Your task to perform on an android device: Go to privacy settings Image 0: 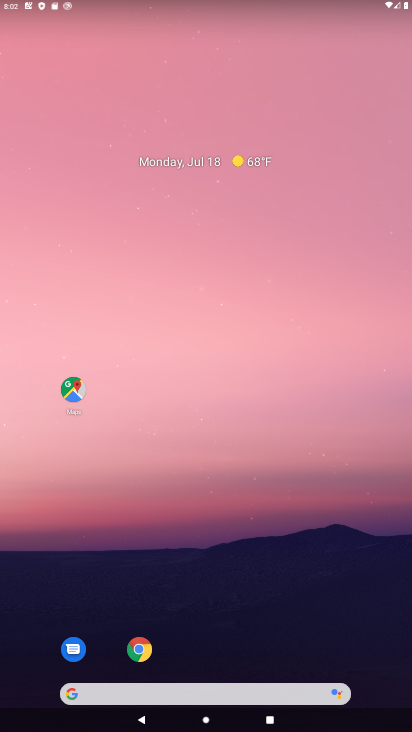
Step 0: drag from (186, 726) to (181, 173)
Your task to perform on an android device: Go to privacy settings Image 1: 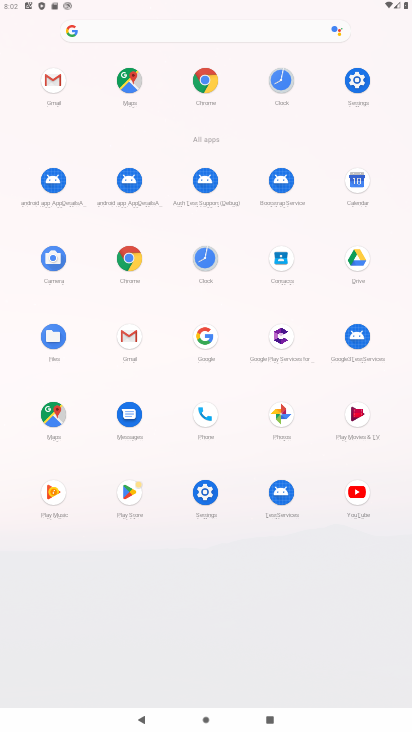
Step 1: click (346, 80)
Your task to perform on an android device: Go to privacy settings Image 2: 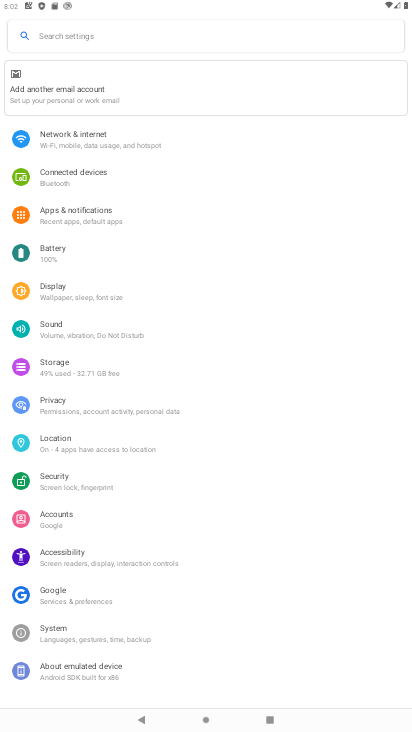
Step 2: click (52, 408)
Your task to perform on an android device: Go to privacy settings Image 3: 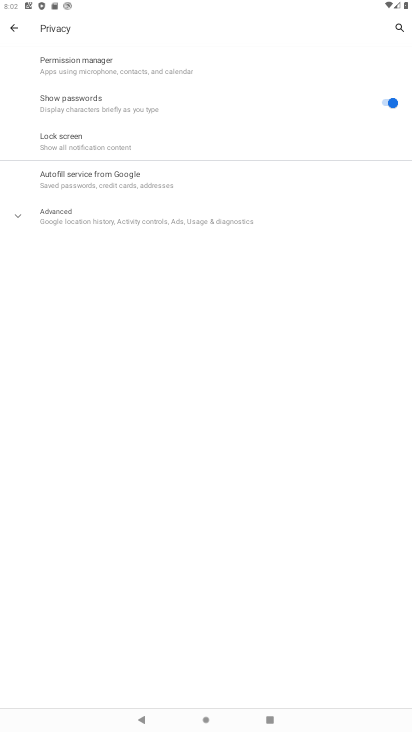
Step 3: task complete